Your task to perform on an android device: Go to Google Image 0: 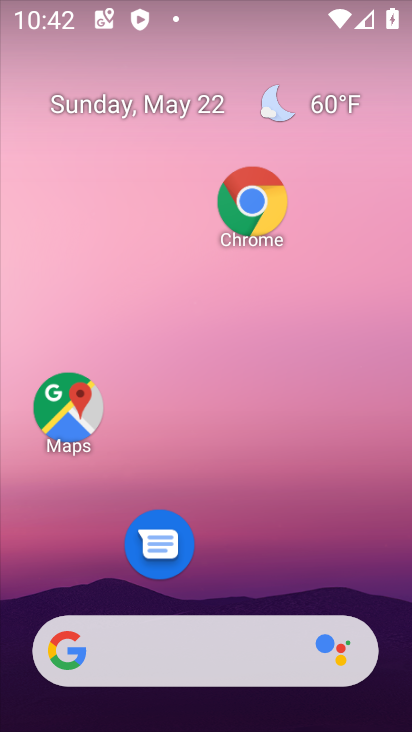
Step 0: drag from (234, 527) to (251, 47)
Your task to perform on an android device: Go to Google Image 1: 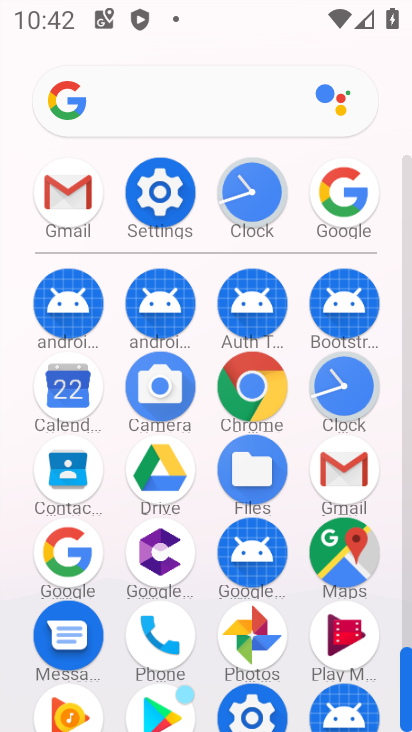
Step 1: click (342, 197)
Your task to perform on an android device: Go to Google Image 2: 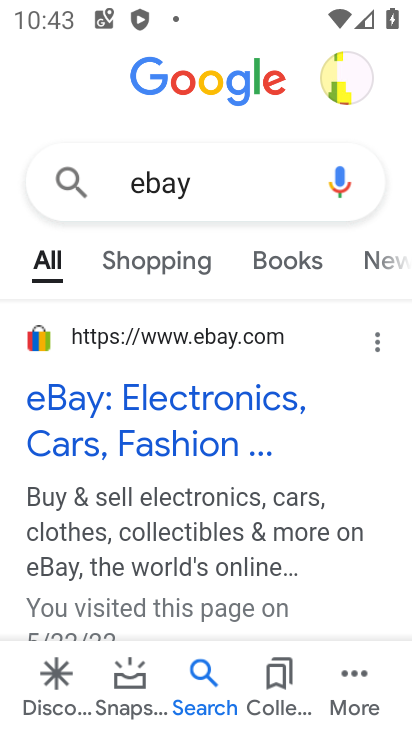
Step 2: task complete